Your task to perform on an android device: Show me popular videos on Youtube Image 0: 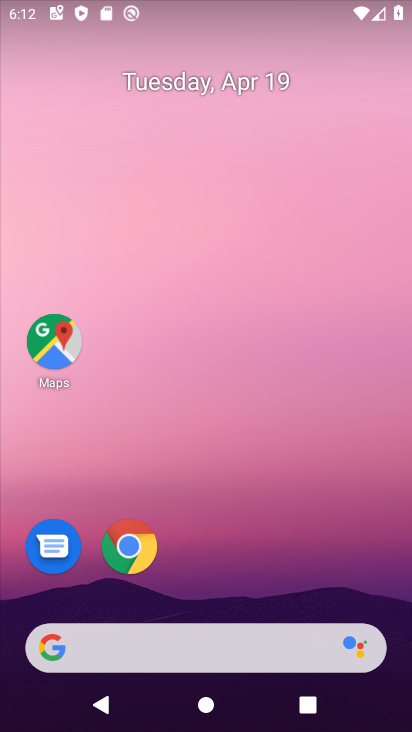
Step 0: drag from (286, 565) to (268, 89)
Your task to perform on an android device: Show me popular videos on Youtube Image 1: 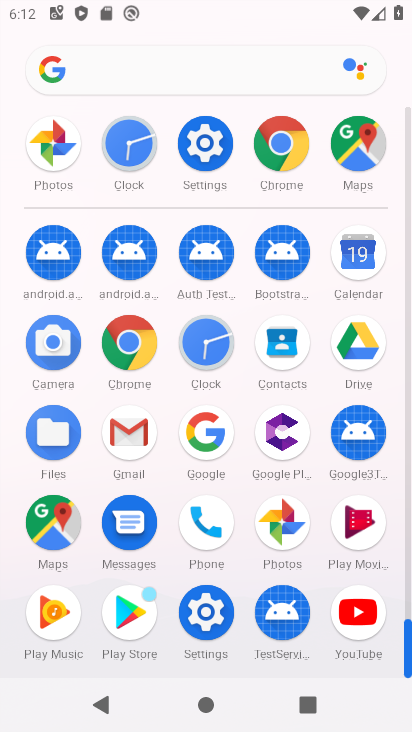
Step 1: click (363, 612)
Your task to perform on an android device: Show me popular videos on Youtube Image 2: 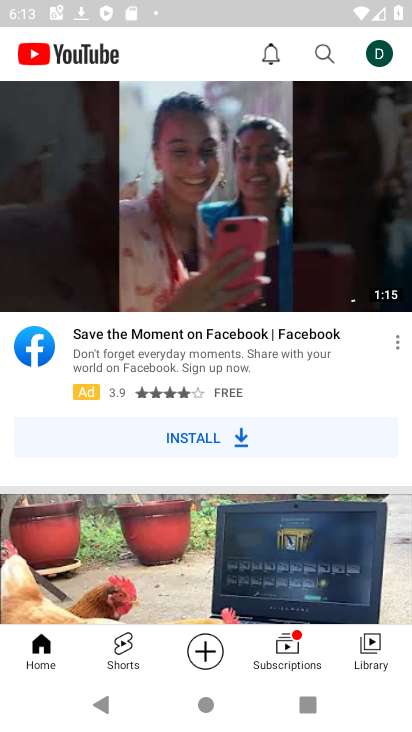
Step 2: drag from (185, 367) to (189, 488)
Your task to perform on an android device: Show me popular videos on Youtube Image 3: 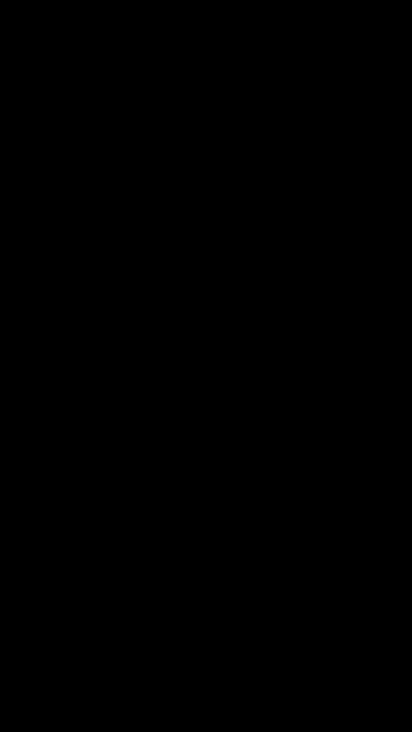
Step 3: press home button
Your task to perform on an android device: Show me popular videos on Youtube Image 4: 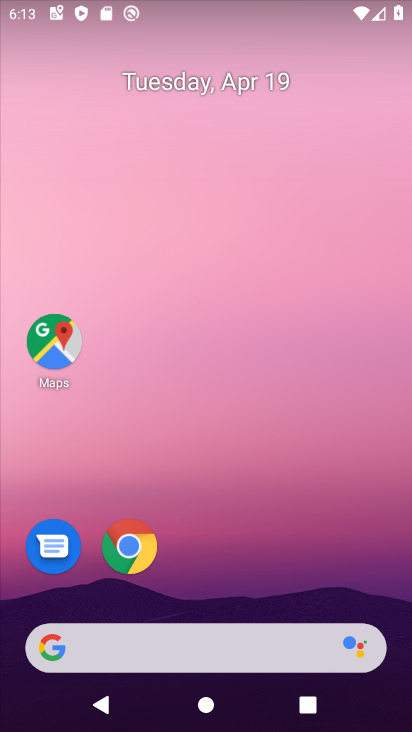
Step 4: drag from (316, 215) to (312, 92)
Your task to perform on an android device: Show me popular videos on Youtube Image 5: 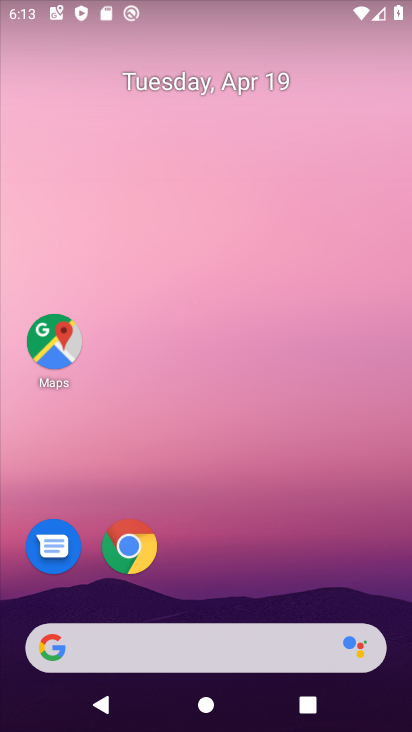
Step 5: drag from (230, 556) to (285, 111)
Your task to perform on an android device: Show me popular videos on Youtube Image 6: 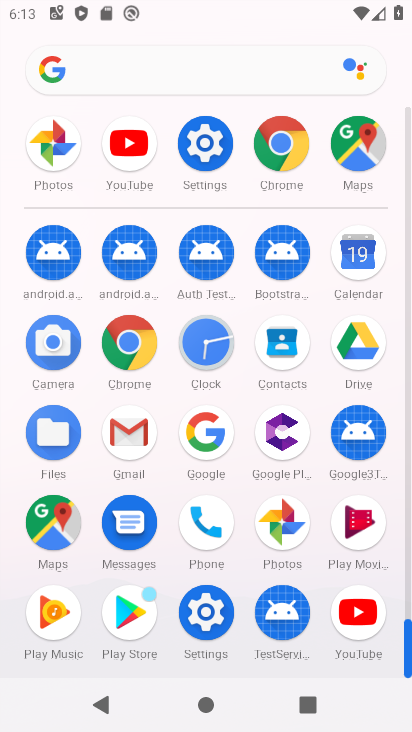
Step 6: click (128, 153)
Your task to perform on an android device: Show me popular videos on Youtube Image 7: 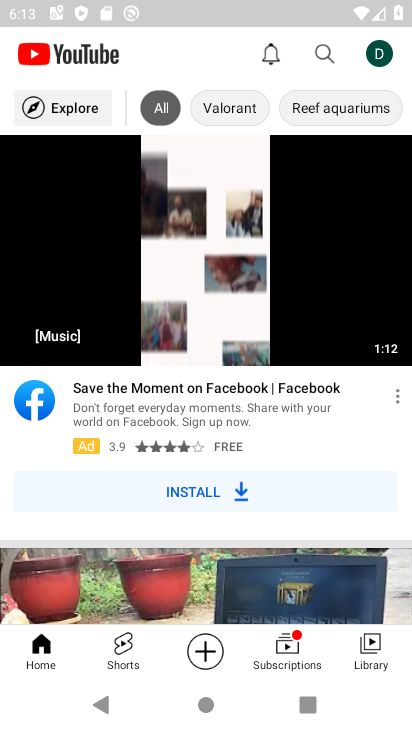
Step 7: click (50, 102)
Your task to perform on an android device: Show me popular videos on Youtube Image 8: 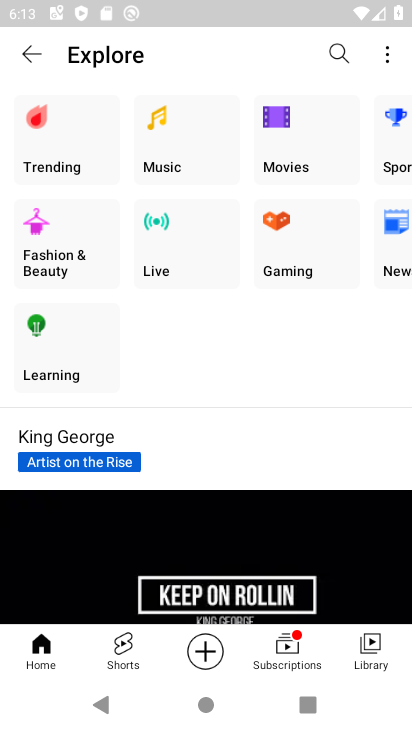
Step 8: click (54, 132)
Your task to perform on an android device: Show me popular videos on Youtube Image 9: 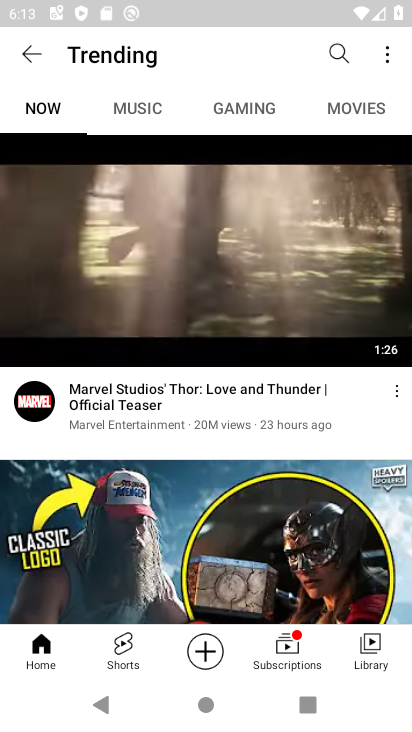
Step 9: task complete